Your task to perform on an android device: Open display settings Image 0: 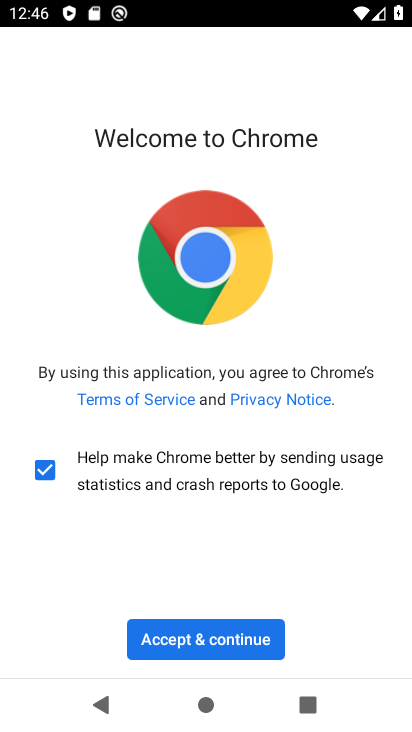
Step 0: press home button
Your task to perform on an android device: Open display settings Image 1: 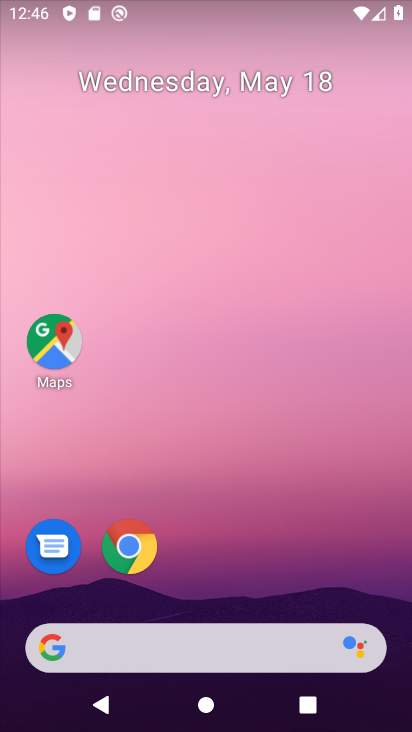
Step 1: drag from (173, 663) to (313, 23)
Your task to perform on an android device: Open display settings Image 2: 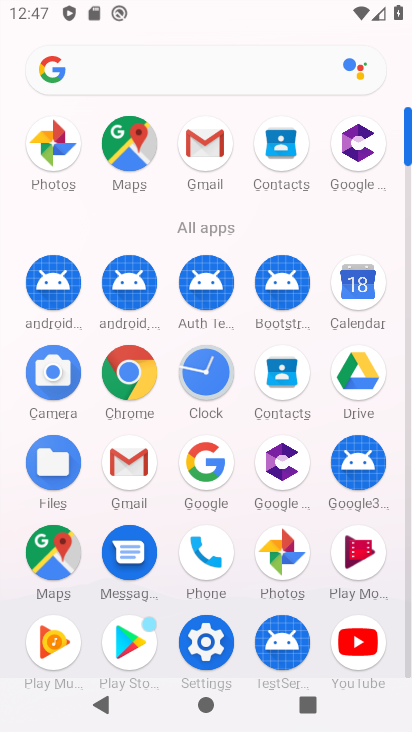
Step 2: click (222, 664)
Your task to perform on an android device: Open display settings Image 3: 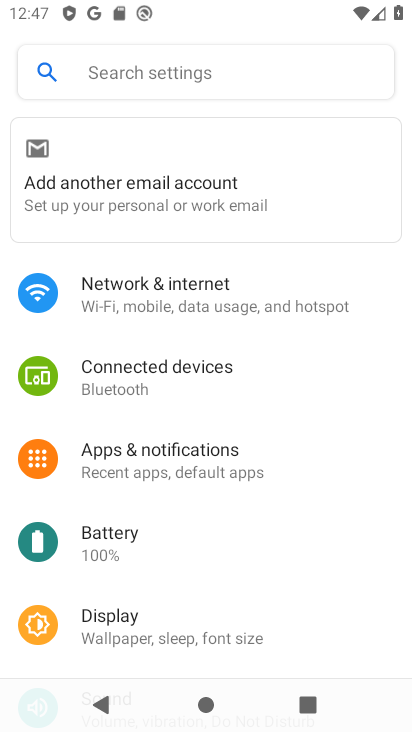
Step 3: click (177, 626)
Your task to perform on an android device: Open display settings Image 4: 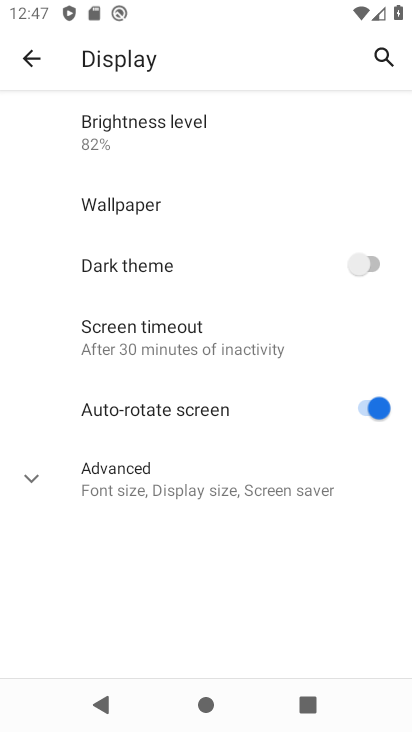
Step 4: task complete